Your task to perform on an android device: change the upload size in google photos Image 0: 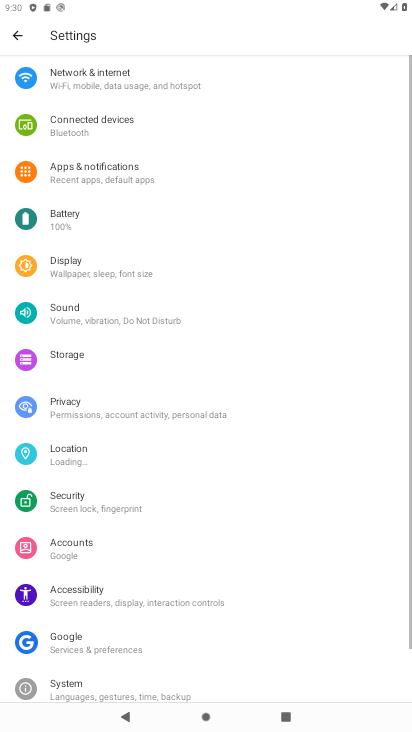
Step 0: click (162, 5)
Your task to perform on an android device: change the upload size in google photos Image 1: 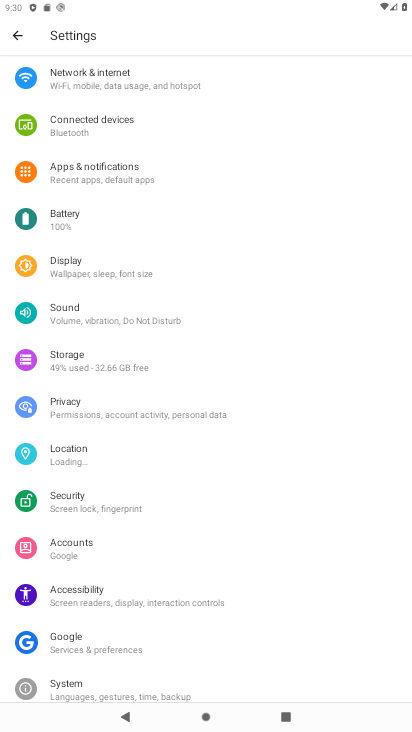
Step 1: press home button
Your task to perform on an android device: change the upload size in google photos Image 2: 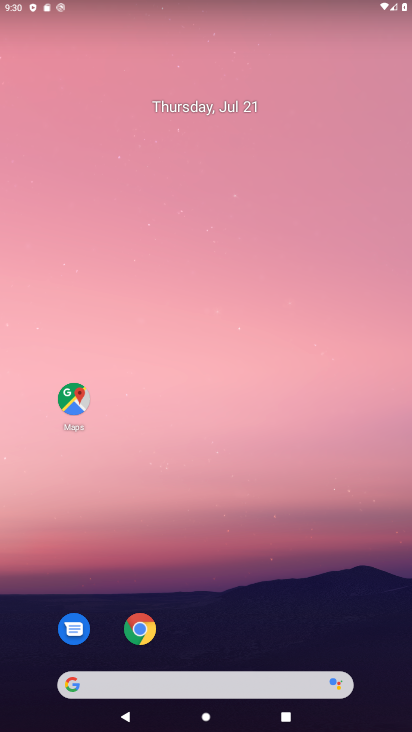
Step 2: drag from (209, 638) to (203, 165)
Your task to perform on an android device: change the upload size in google photos Image 3: 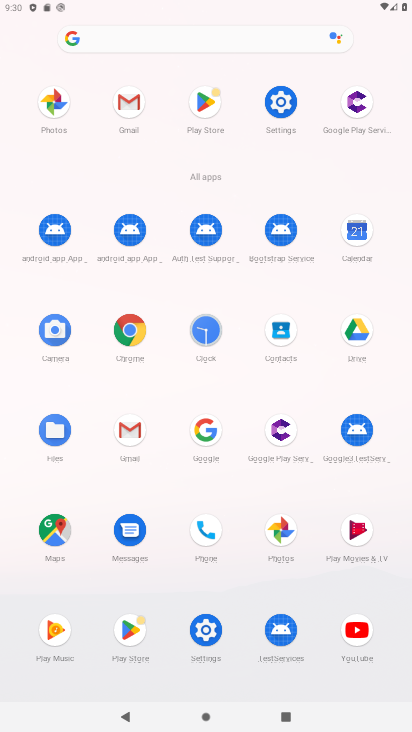
Step 3: click (48, 111)
Your task to perform on an android device: change the upload size in google photos Image 4: 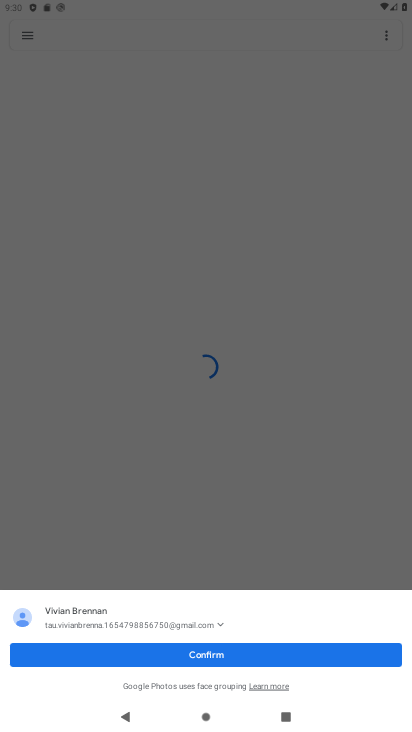
Step 4: click (18, 39)
Your task to perform on an android device: change the upload size in google photos Image 5: 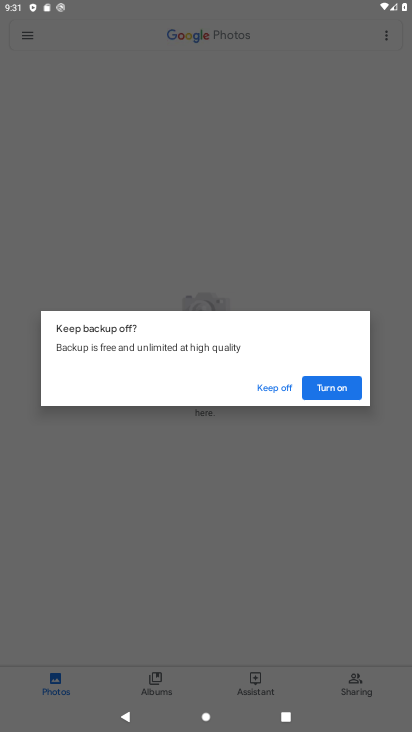
Step 5: click (328, 390)
Your task to perform on an android device: change the upload size in google photos Image 6: 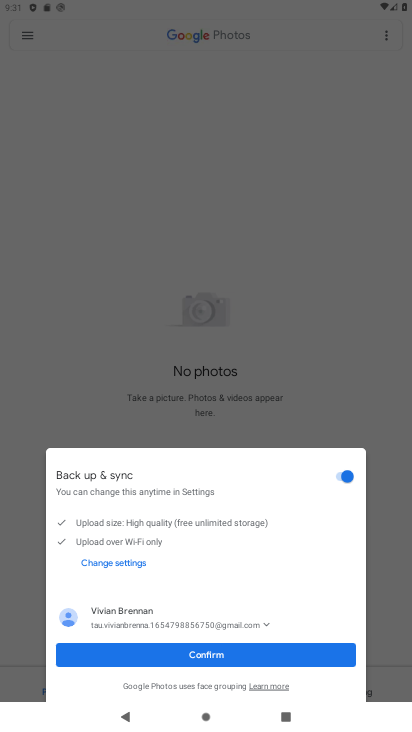
Step 6: click (92, 570)
Your task to perform on an android device: change the upload size in google photos Image 7: 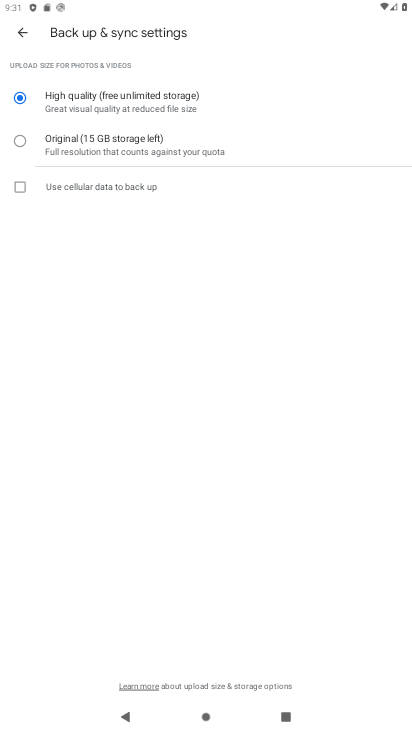
Step 7: click (147, 153)
Your task to perform on an android device: change the upload size in google photos Image 8: 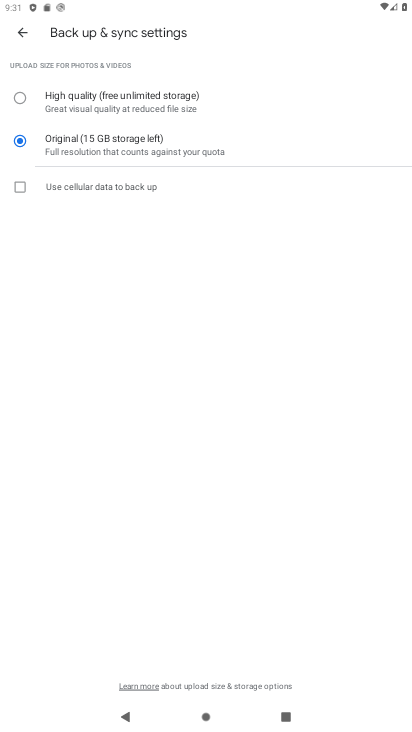
Step 8: task complete